Your task to perform on an android device: set default search engine in the chrome app Image 0: 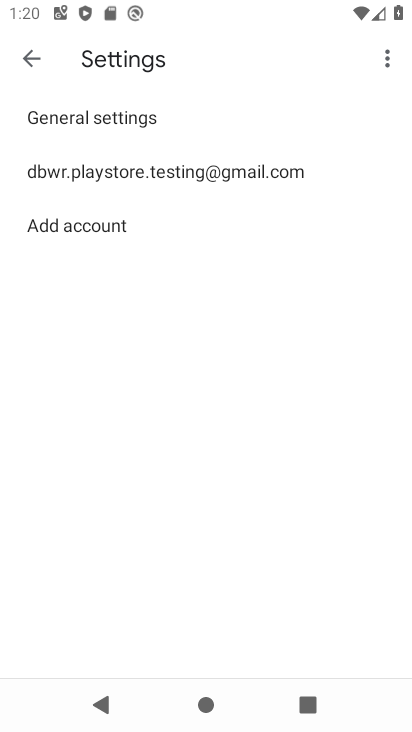
Step 0: press home button
Your task to perform on an android device: set default search engine in the chrome app Image 1: 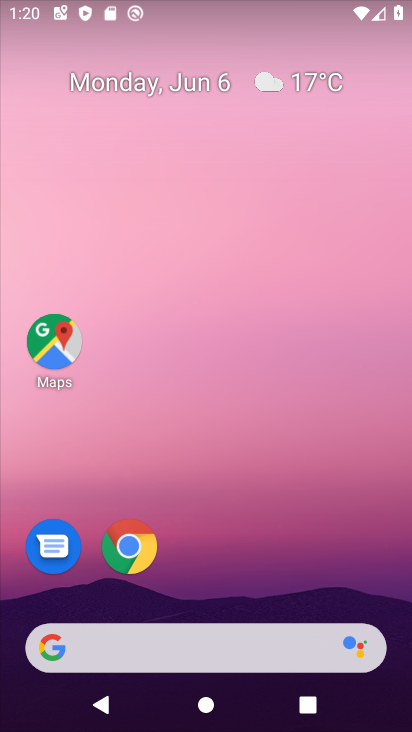
Step 1: click (136, 560)
Your task to perform on an android device: set default search engine in the chrome app Image 2: 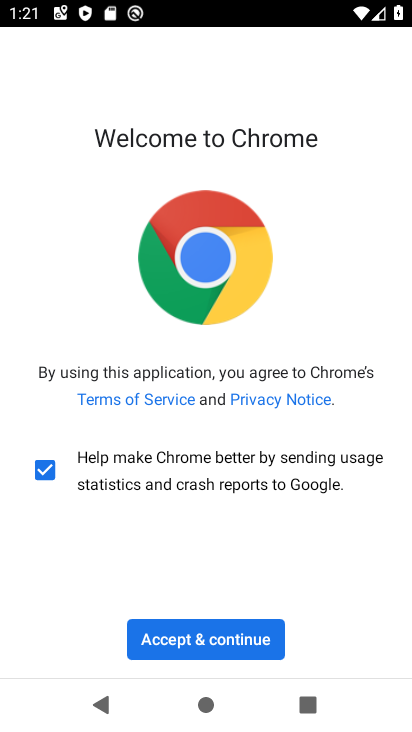
Step 2: click (190, 648)
Your task to perform on an android device: set default search engine in the chrome app Image 3: 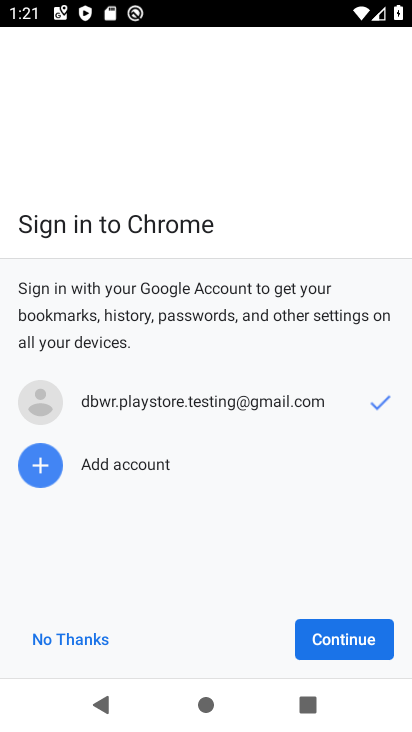
Step 3: click (367, 637)
Your task to perform on an android device: set default search engine in the chrome app Image 4: 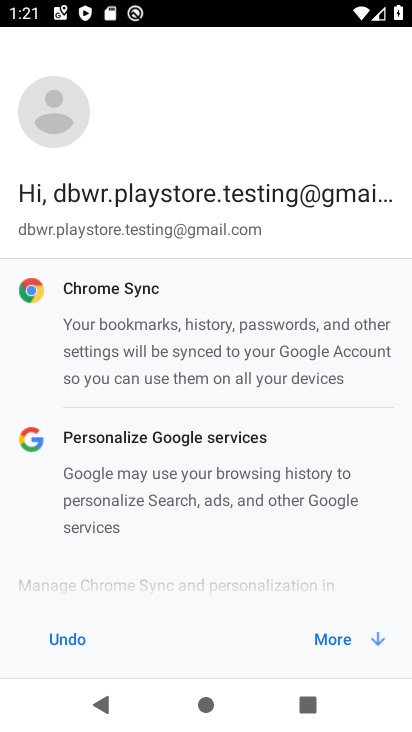
Step 4: click (367, 637)
Your task to perform on an android device: set default search engine in the chrome app Image 5: 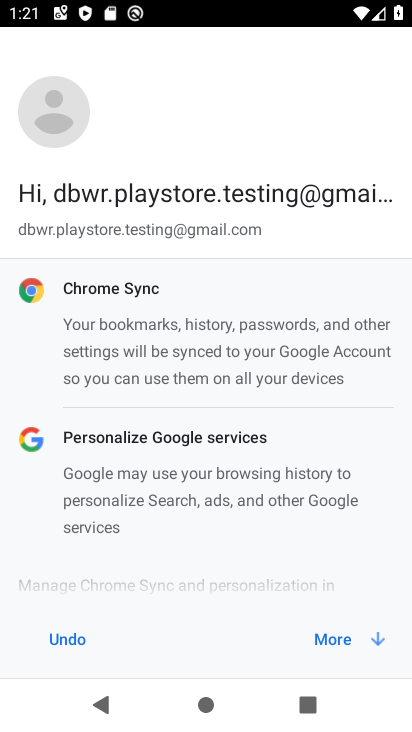
Step 5: click (367, 637)
Your task to perform on an android device: set default search engine in the chrome app Image 6: 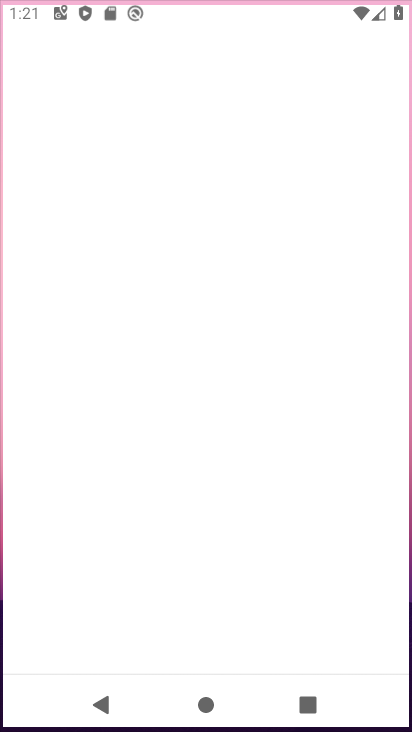
Step 6: click (367, 637)
Your task to perform on an android device: set default search engine in the chrome app Image 7: 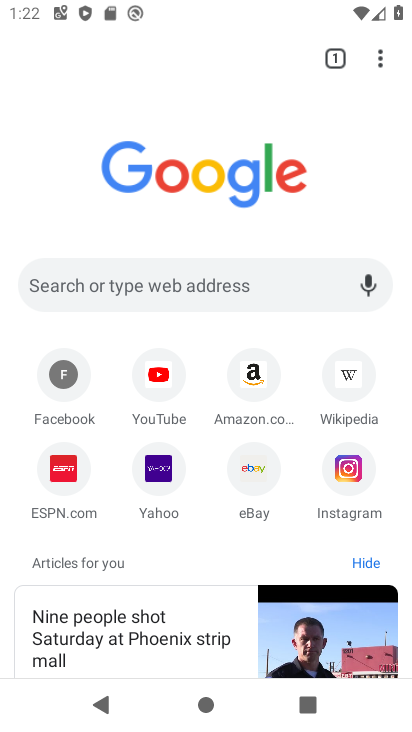
Step 7: click (375, 46)
Your task to perform on an android device: set default search engine in the chrome app Image 8: 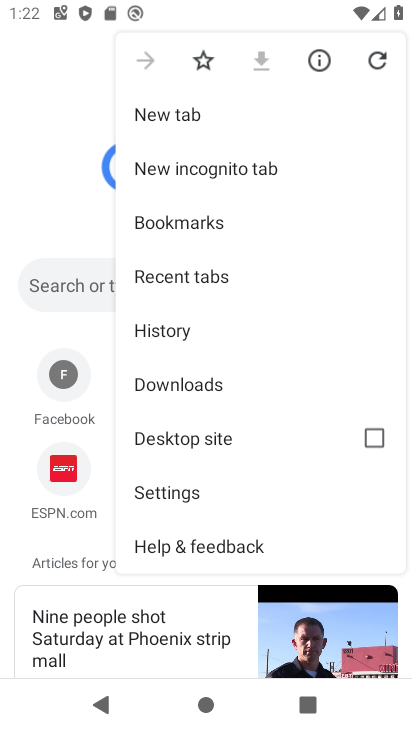
Step 8: click (216, 481)
Your task to perform on an android device: set default search engine in the chrome app Image 9: 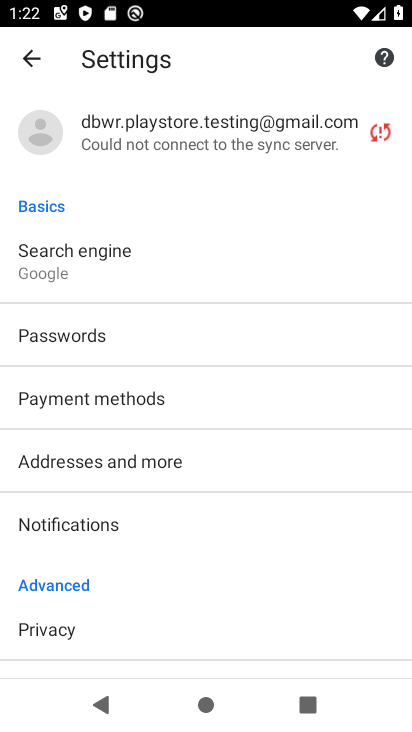
Step 9: click (92, 246)
Your task to perform on an android device: set default search engine in the chrome app Image 10: 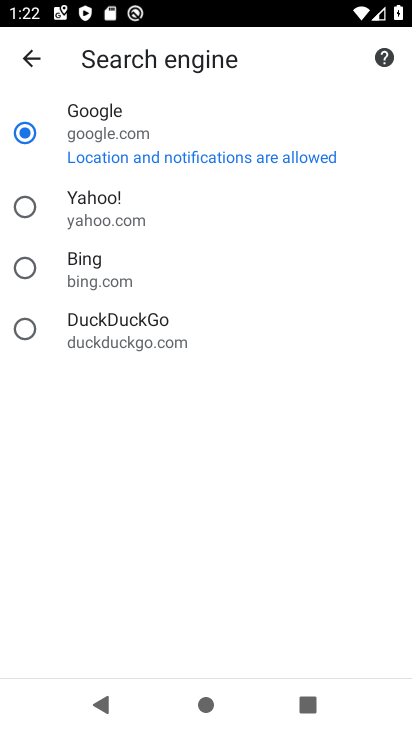
Step 10: click (96, 259)
Your task to perform on an android device: set default search engine in the chrome app Image 11: 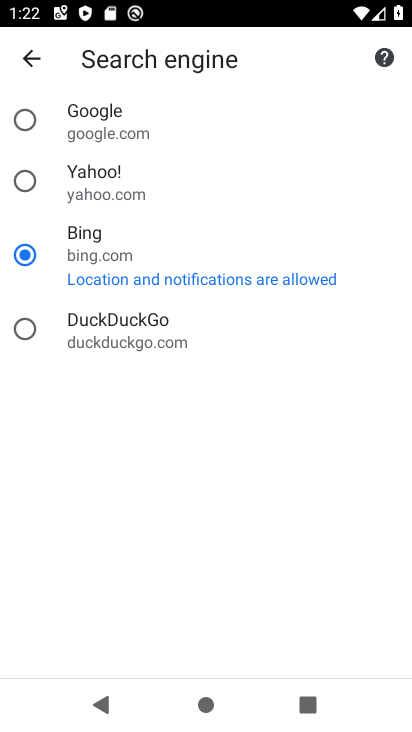
Step 11: task complete